Your task to perform on an android device: all mails in gmail Image 0: 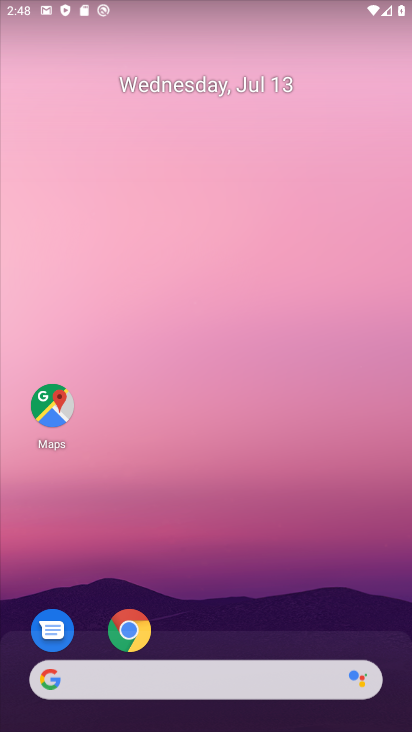
Step 0: drag from (251, 643) to (261, 454)
Your task to perform on an android device: all mails in gmail Image 1: 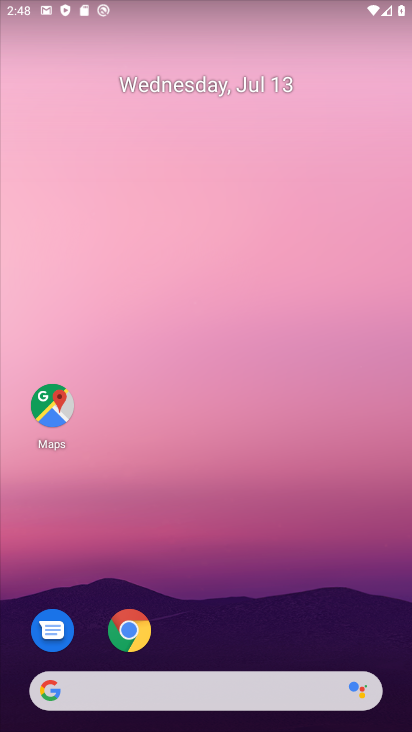
Step 1: drag from (287, 584) to (351, 26)
Your task to perform on an android device: all mails in gmail Image 2: 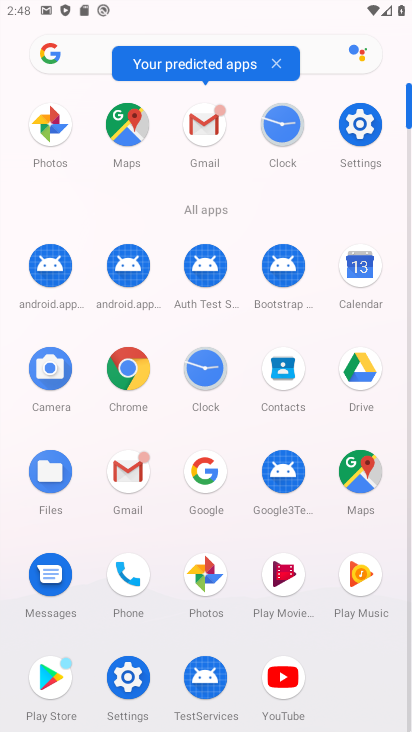
Step 2: click (199, 124)
Your task to perform on an android device: all mails in gmail Image 3: 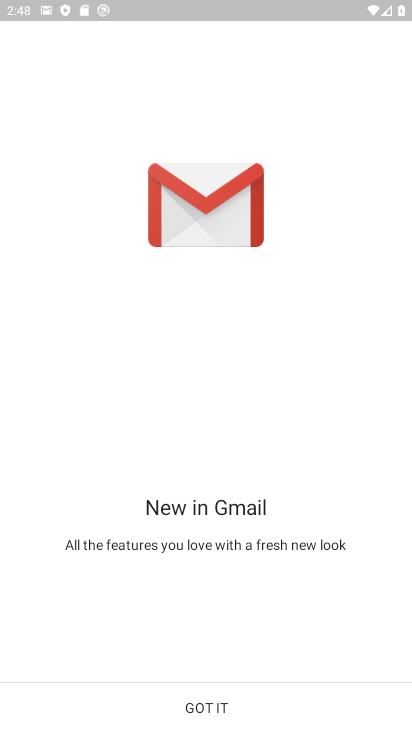
Step 3: click (252, 710)
Your task to perform on an android device: all mails in gmail Image 4: 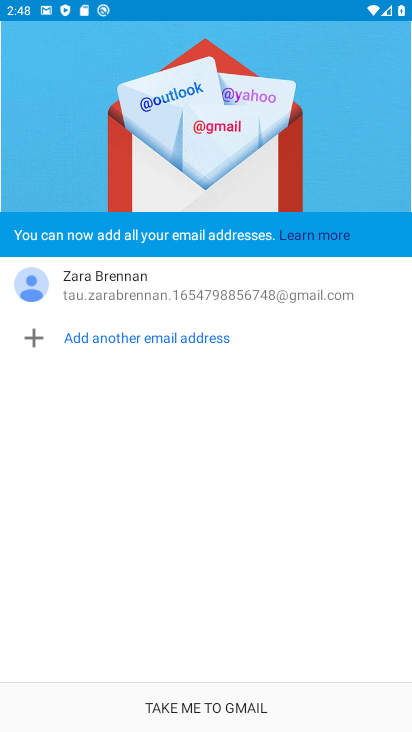
Step 4: click (252, 710)
Your task to perform on an android device: all mails in gmail Image 5: 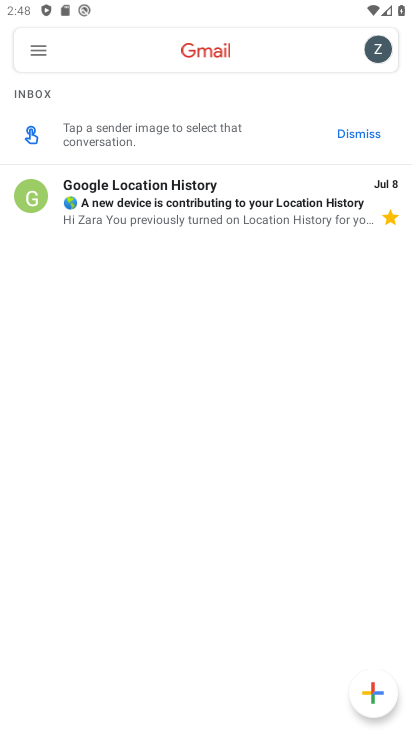
Step 5: click (31, 61)
Your task to perform on an android device: all mails in gmail Image 6: 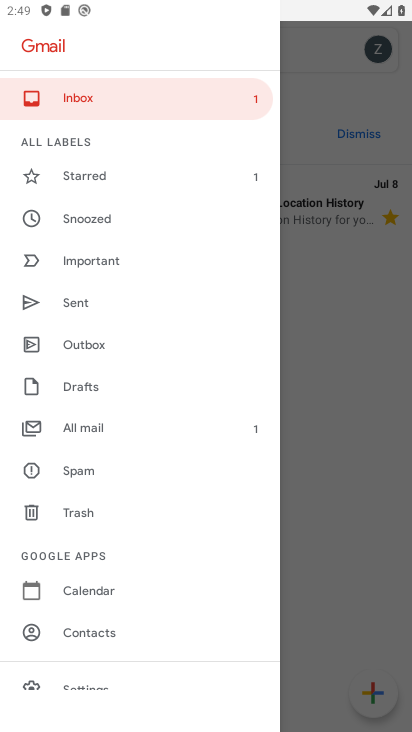
Step 6: click (107, 417)
Your task to perform on an android device: all mails in gmail Image 7: 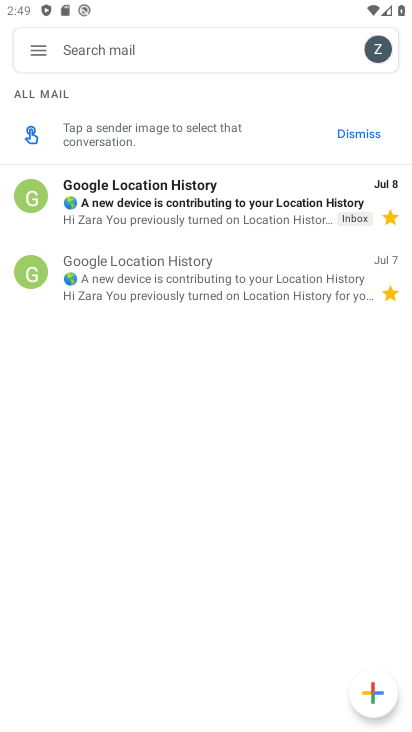
Step 7: task complete